Your task to perform on an android device: set the stopwatch Image 0: 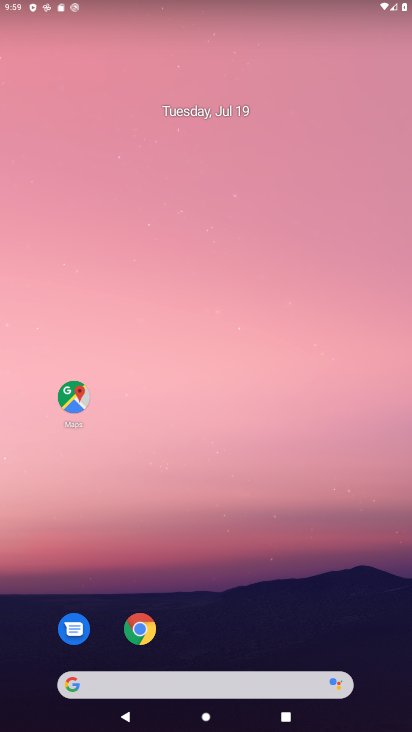
Step 0: press home button
Your task to perform on an android device: set the stopwatch Image 1: 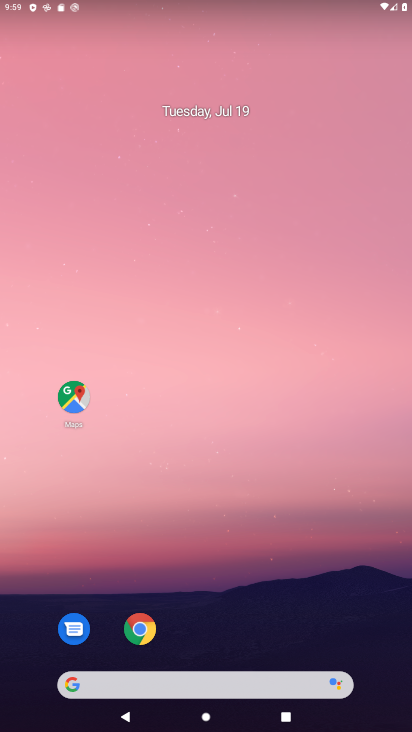
Step 1: drag from (272, 647) to (261, 58)
Your task to perform on an android device: set the stopwatch Image 2: 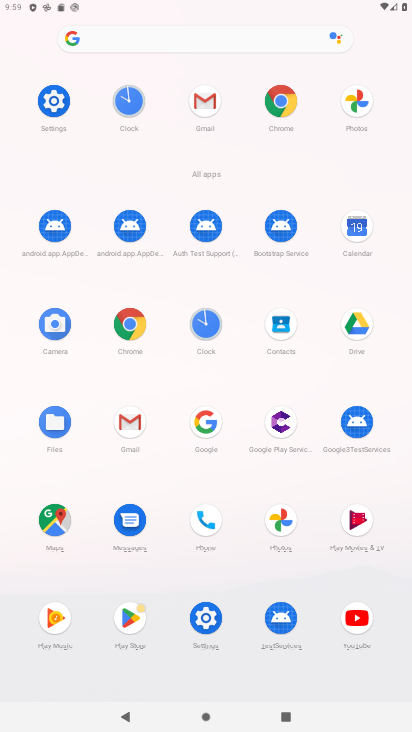
Step 2: click (198, 312)
Your task to perform on an android device: set the stopwatch Image 3: 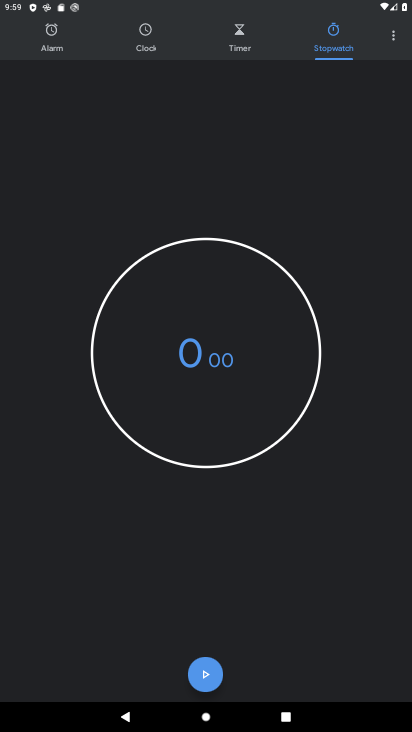
Step 3: click (211, 673)
Your task to perform on an android device: set the stopwatch Image 4: 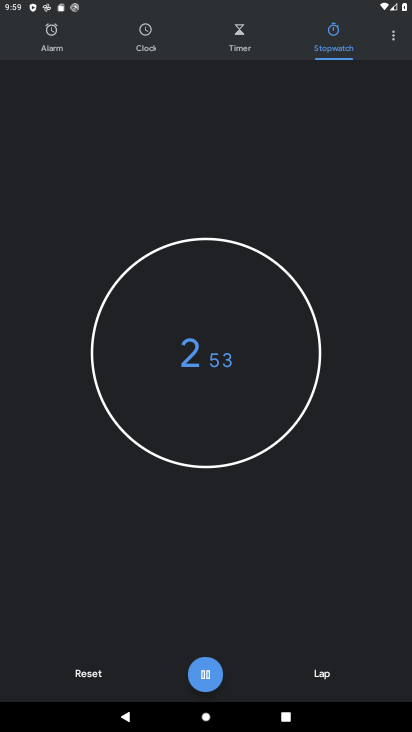
Step 4: click (206, 677)
Your task to perform on an android device: set the stopwatch Image 5: 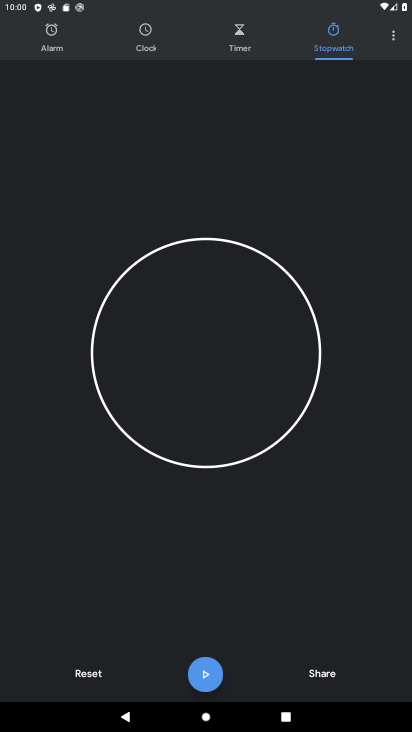
Step 5: task complete